Your task to perform on an android device: Go to internet settings Image 0: 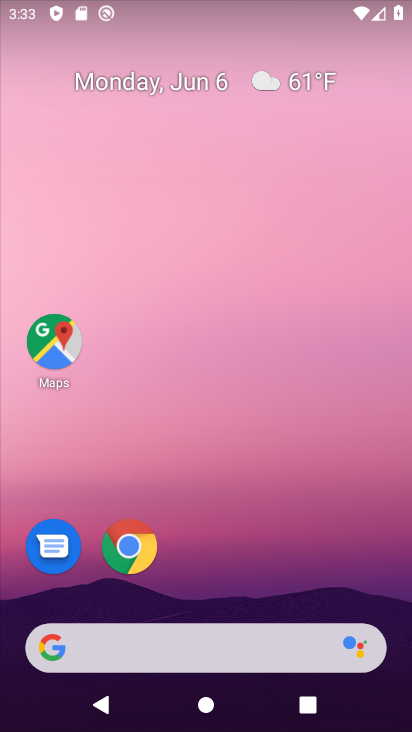
Step 0: drag from (235, 724) to (214, 30)
Your task to perform on an android device: Go to internet settings Image 1: 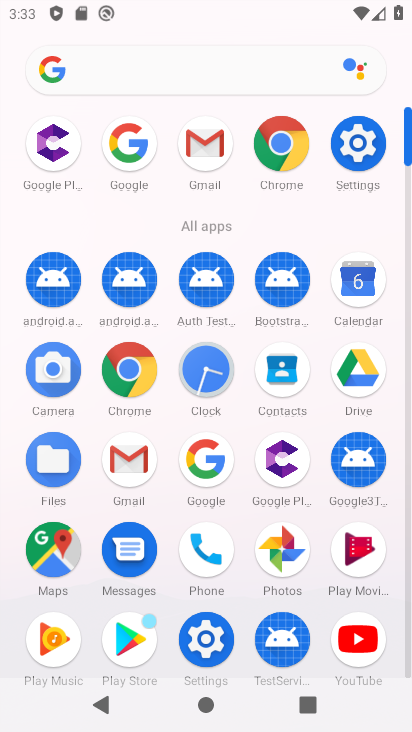
Step 1: click (365, 137)
Your task to perform on an android device: Go to internet settings Image 2: 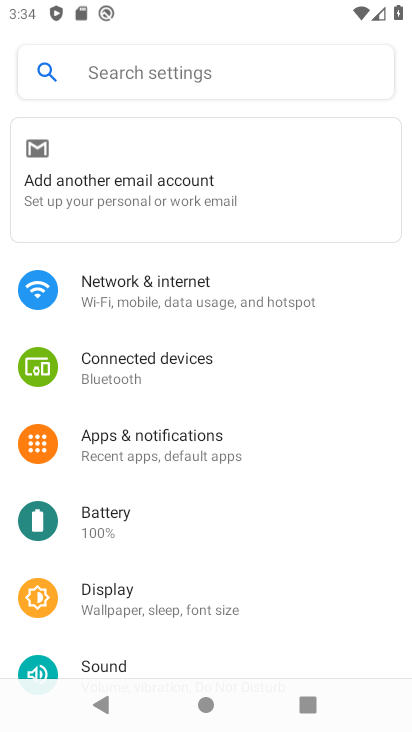
Step 2: click (155, 302)
Your task to perform on an android device: Go to internet settings Image 3: 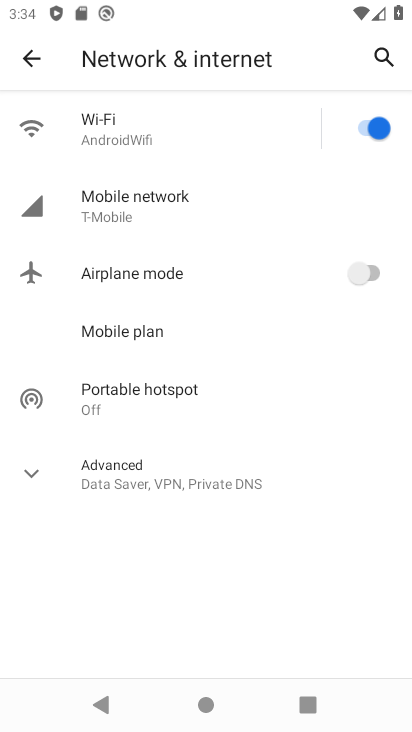
Step 3: task complete